Your task to perform on an android device: Go to settings Image 0: 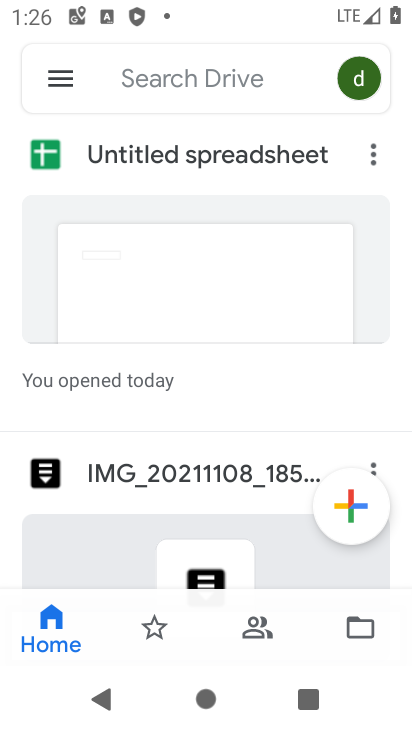
Step 0: press home button
Your task to perform on an android device: Go to settings Image 1: 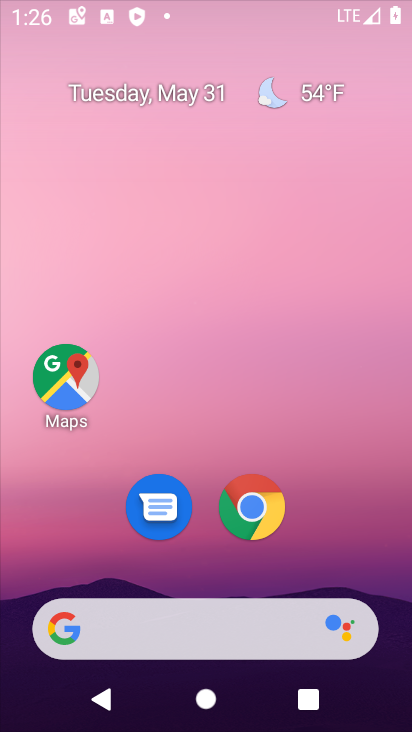
Step 1: drag from (377, 689) to (318, 118)
Your task to perform on an android device: Go to settings Image 2: 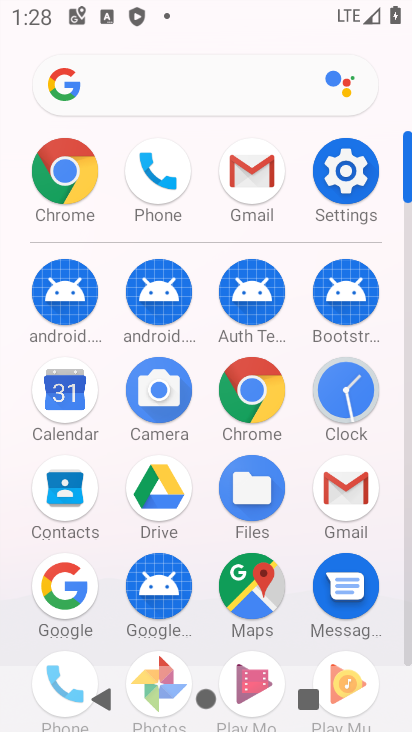
Step 2: click (335, 172)
Your task to perform on an android device: Go to settings Image 3: 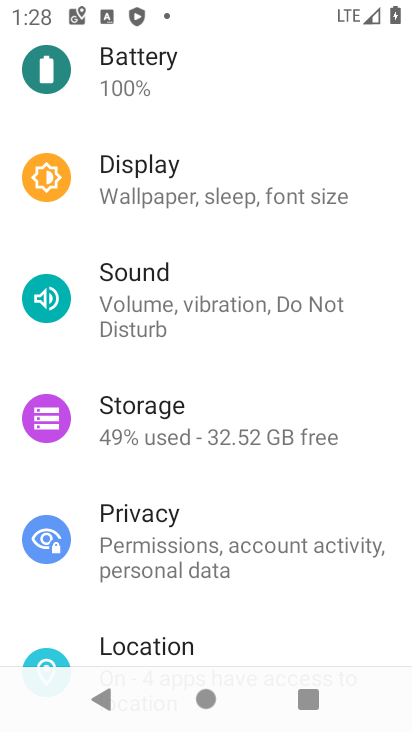
Step 3: task complete